Your task to perform on an android device: check the backup settings in the google photos Image 0: 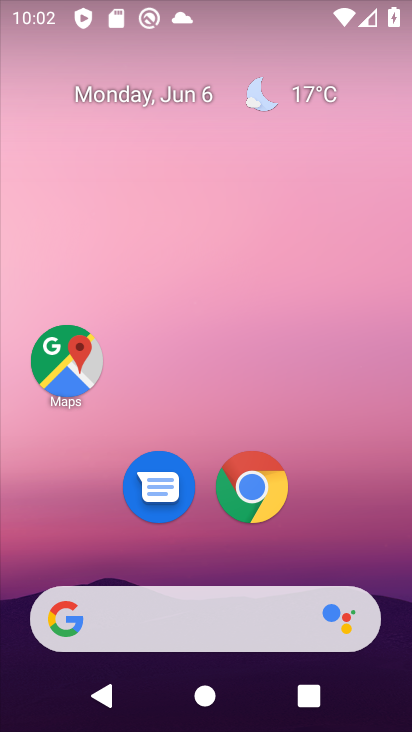
Step 0: drag from (91, 572) to (204, 124)
Your task to perform on an android device: check the backup settings in the google photos Image 1: 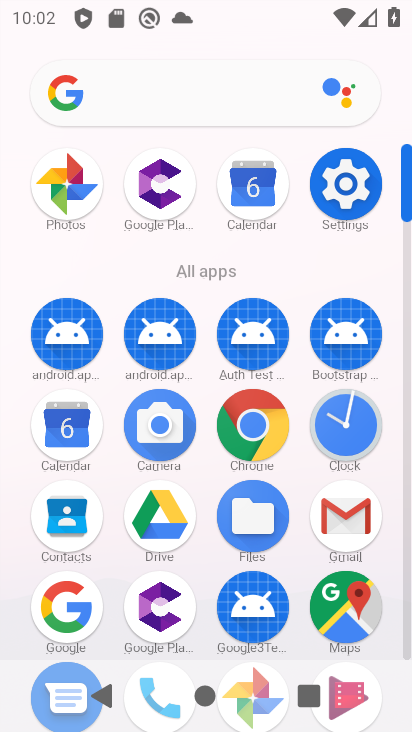
Step 1: drag from (189, 656) to (237, 442)
Your task to perform on an android device: check the backup settings in the google photos Image 2: 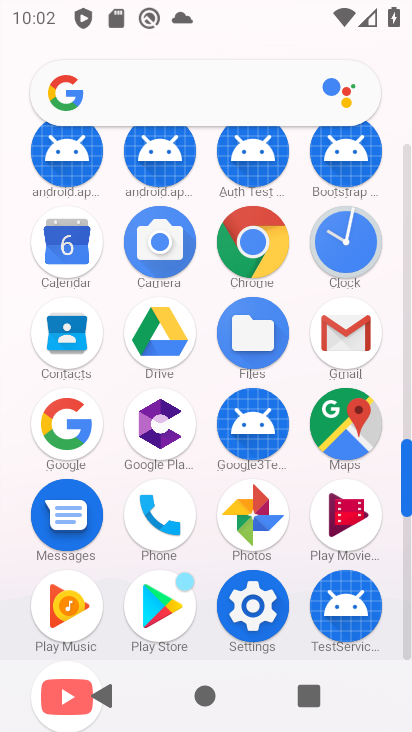
Step 2: click (255, 516)
Your task to perform on an android device: check the backup settings in the google photos Image 3: 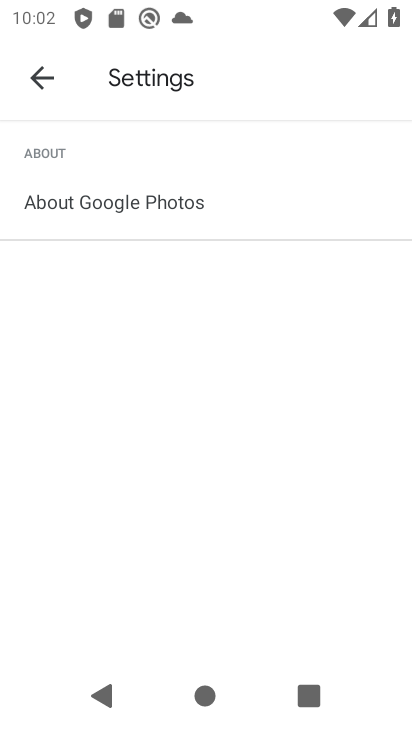
Step 3: click (29, 78)
Your task to perform on an android device: check the backup settings in the google photos Image 4: 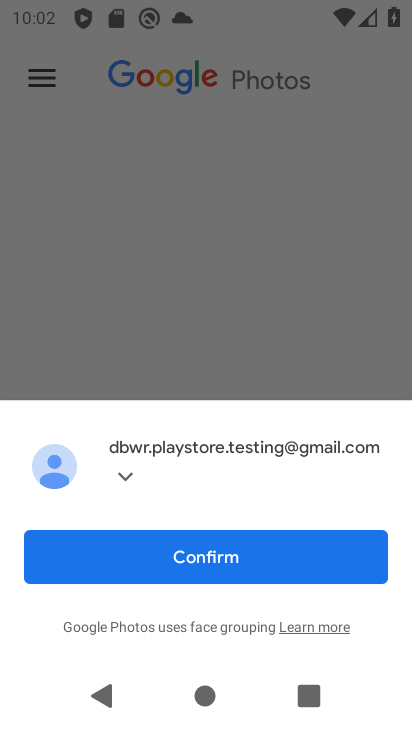
Step 4: click (37, 86)
Your task to perform on an android device: check the backup settings in the google photos Image 5: 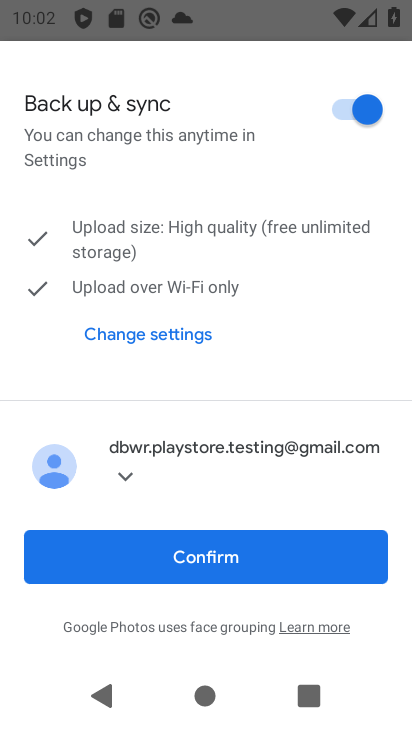
Step 5: click (199, 558)
Your task to perform on an android device: check the backup settings in the google photos Image 6: 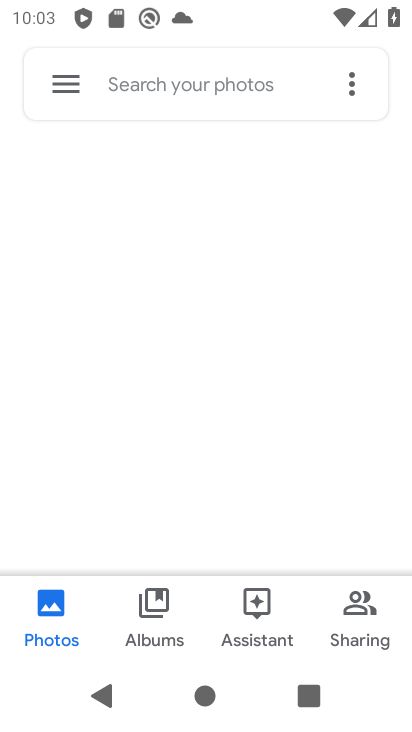
Step 6: click (56, 85)
Your task to perform on an android device: check the backup settings in the google photos Image 7: 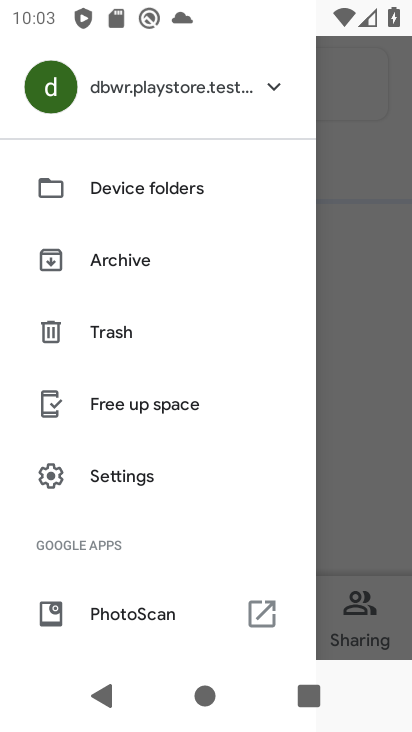
Step 7: click (125, 488)
Your task to perform on an android device: check the backup settings in the google photos Image 8: 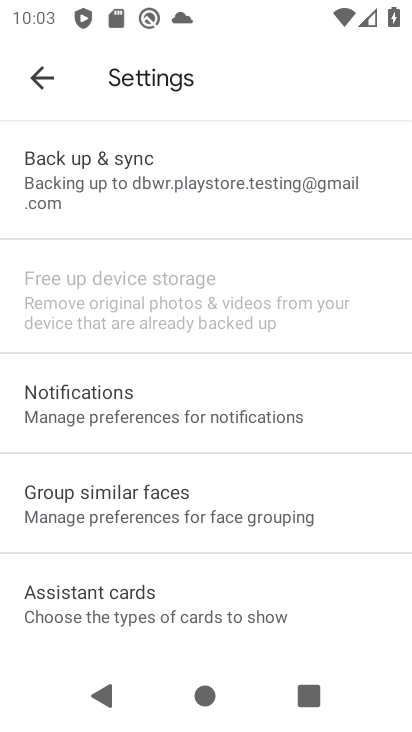
Step 8: click (169, 194)
Your task to perform on an android device: check the backup settings in the google photos Image 9: 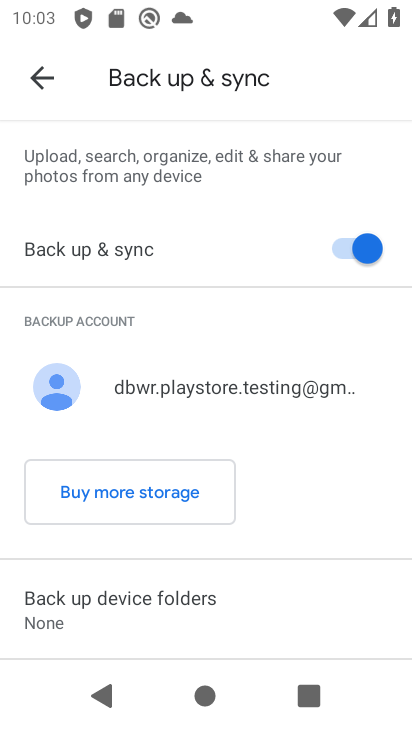
Step 9: task complete